Your task to perform on an android device: Open the Play Movies app and select the watchlist tab. Image 0: 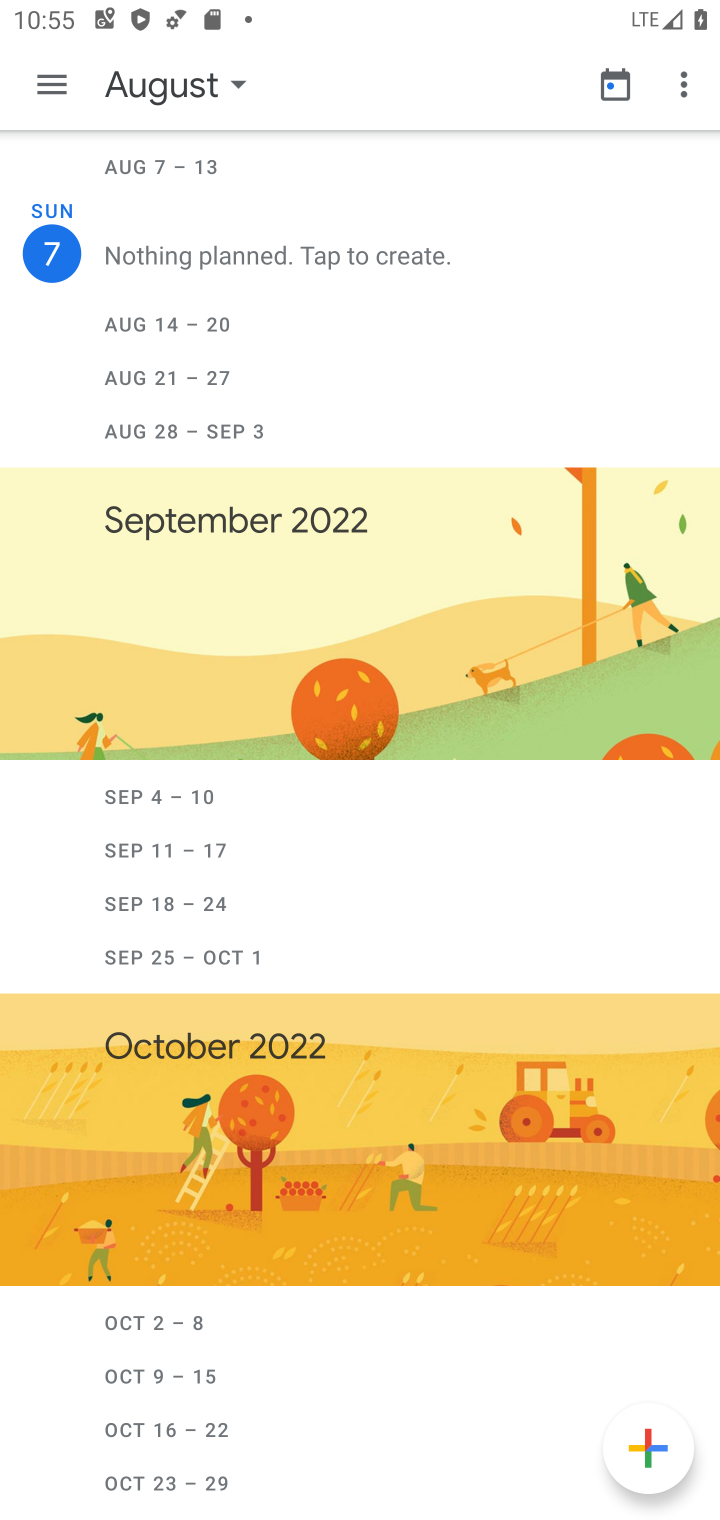
Step 0: press back button
Your task to perform on an android device: Open the Play Movies app and select the watchlist tab. Image 1: 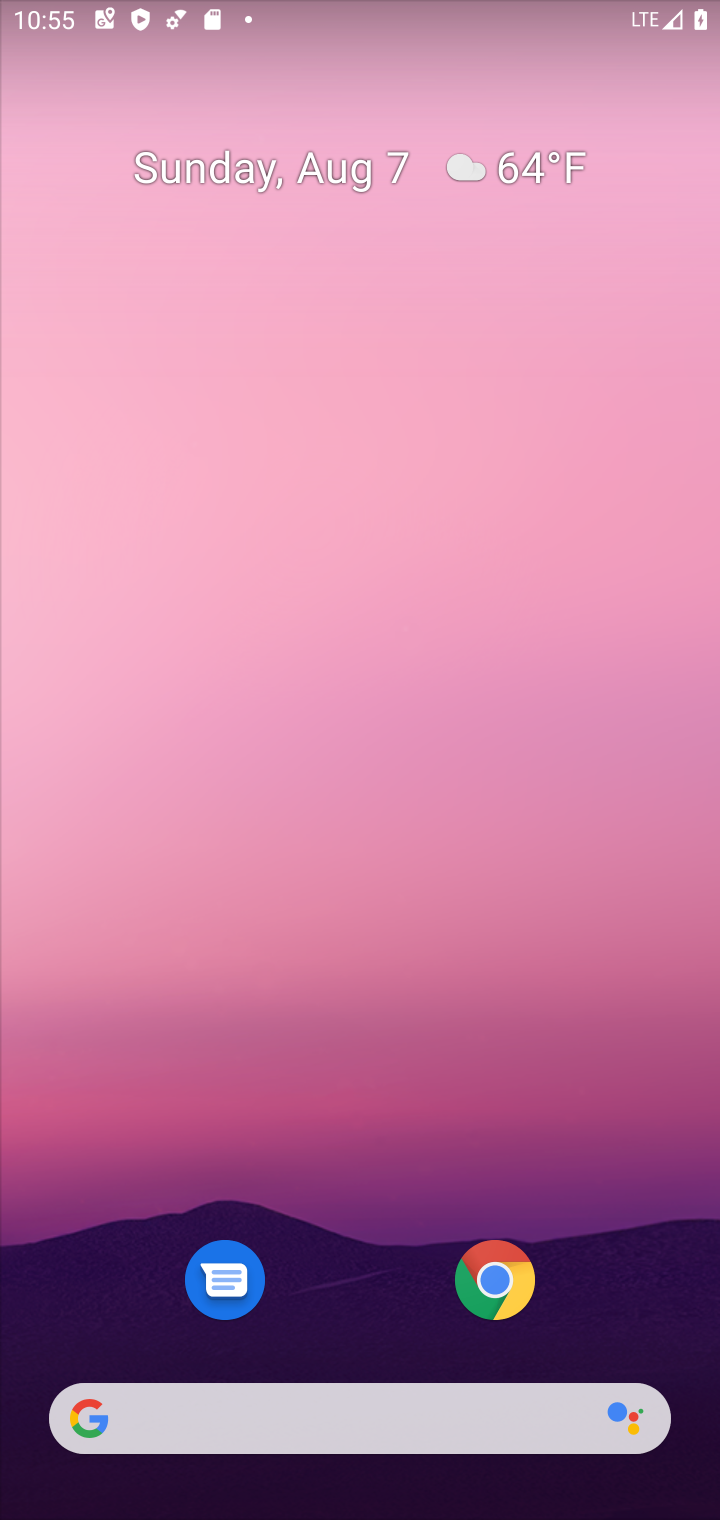
Step 1: drag from (361, 1341) to (540, 157)
Your task to perform on an android device: Open the Play Movies app and select the watchlist tab. Image 2: 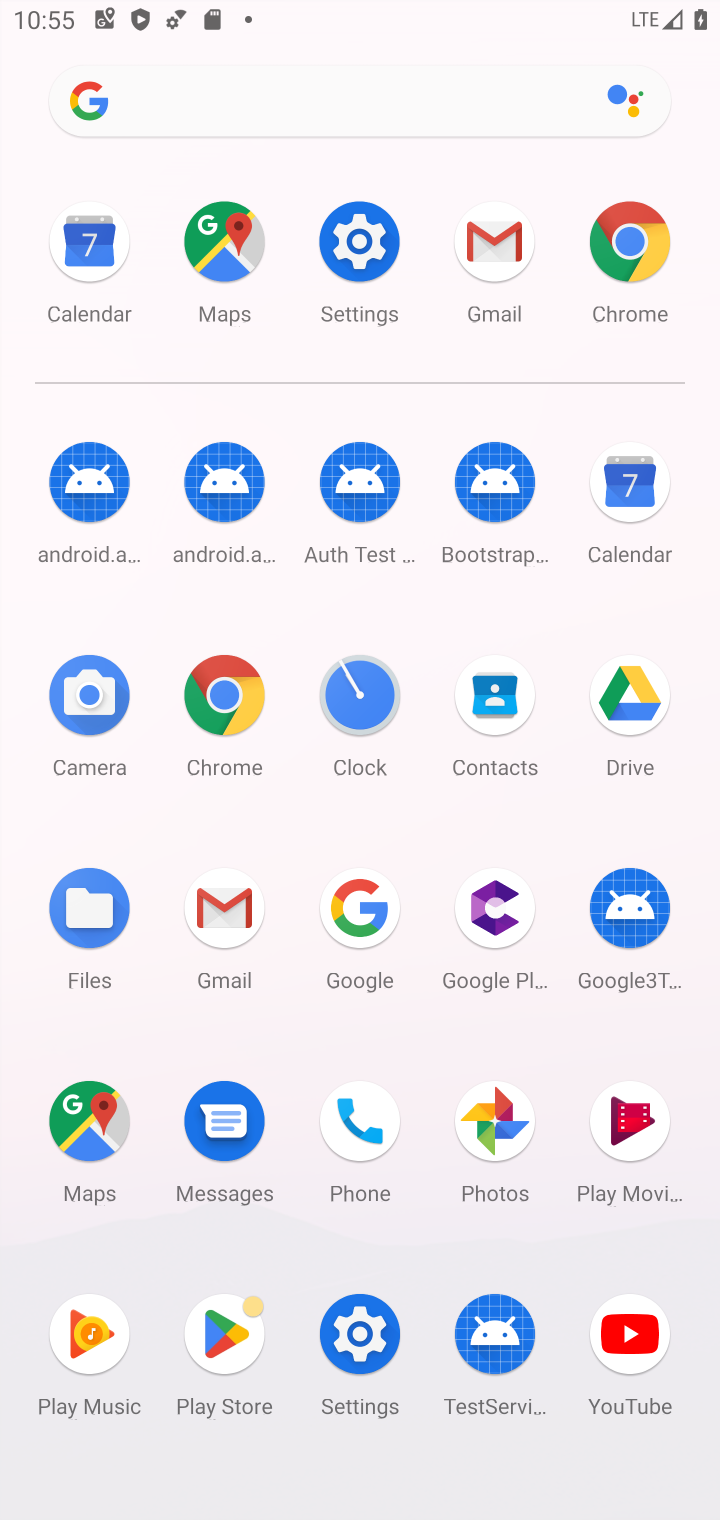
Step 2: click (617, 1156)
Your task to perform on an android device: Open the Play Movies app and select the watchlist tab. Image 3: 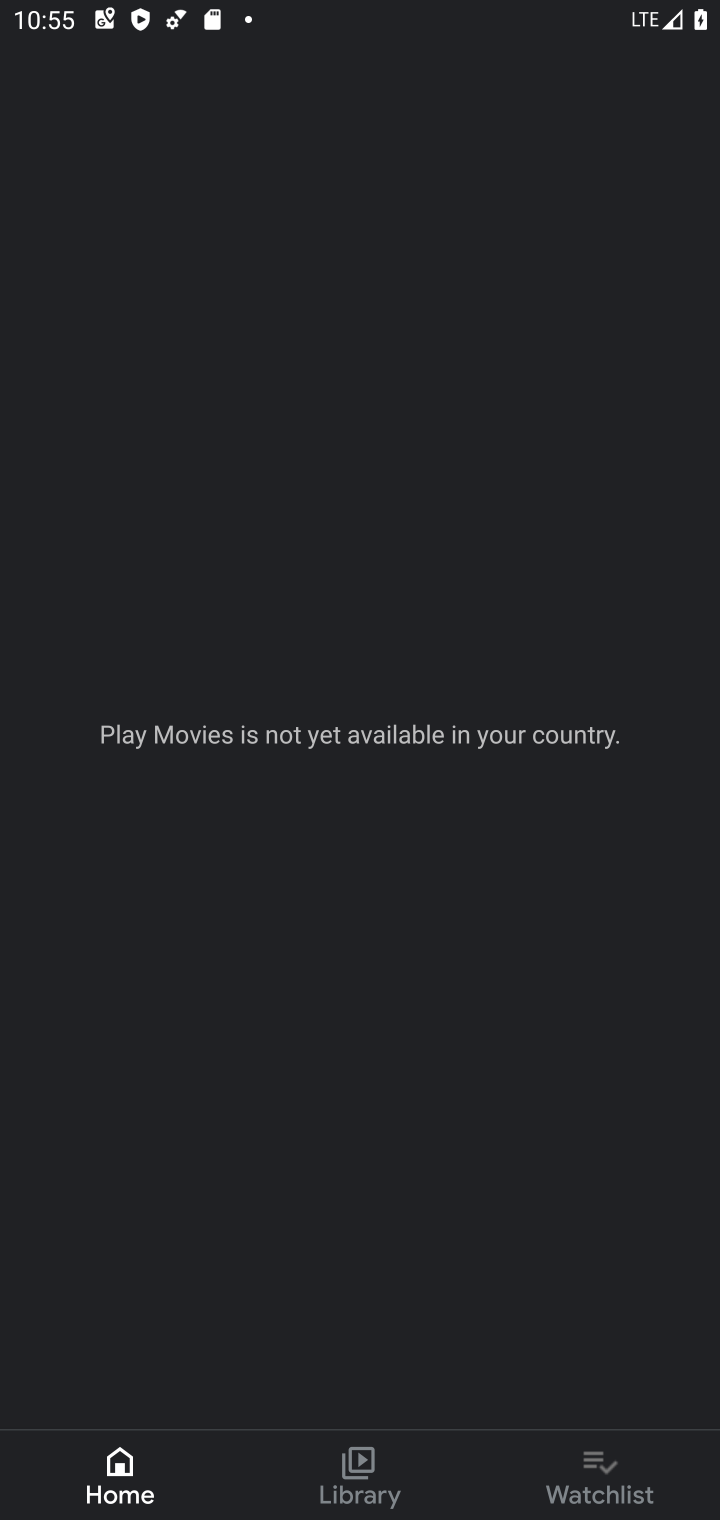
Step 3: click (603, 1455)
Your task to perform on an android device: Open the Play Movies app and select the watchlist tab. Image 4: 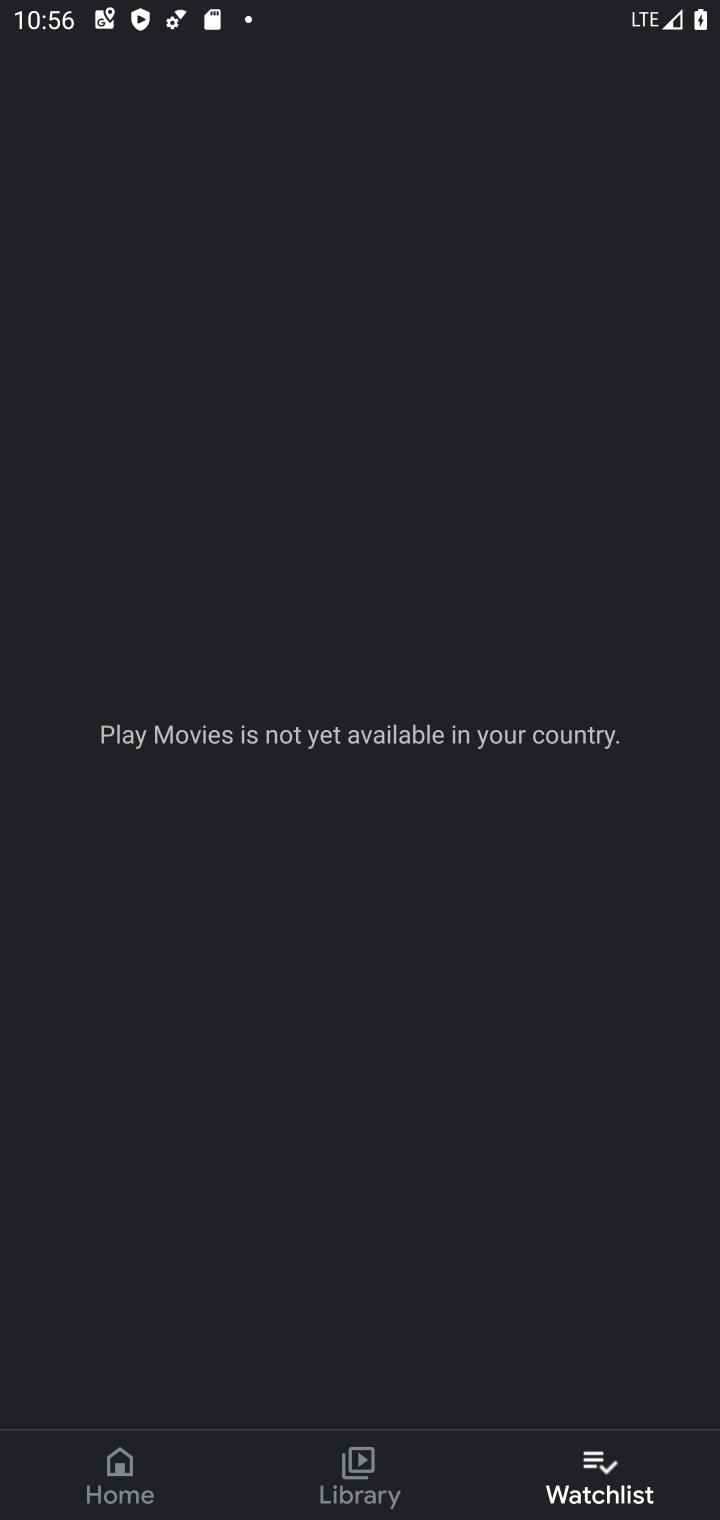
Step 4: task complete